Your task to perform on an android device: turn off translation in the chrome app Image 0: 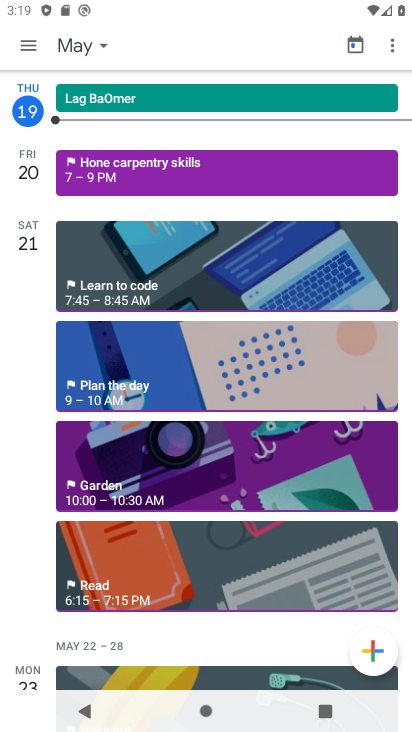
Step 0: press home button
Your task to perform on an android device: turn off translation in the chrome app Image 1: 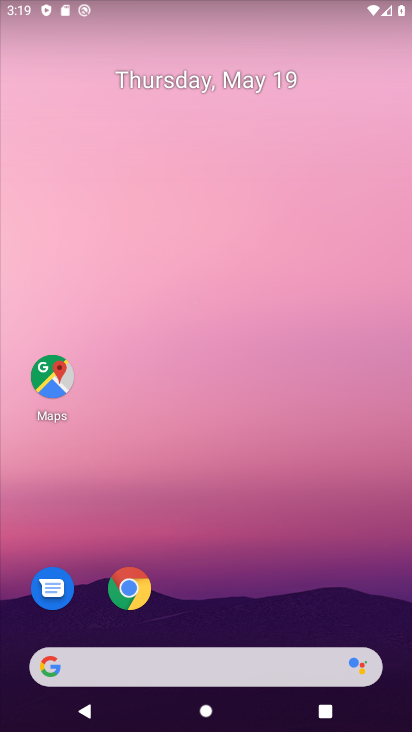
Step 1: click (140, 592)
Your task to perform on an android device: turn off translation in the chrome app Image 2: 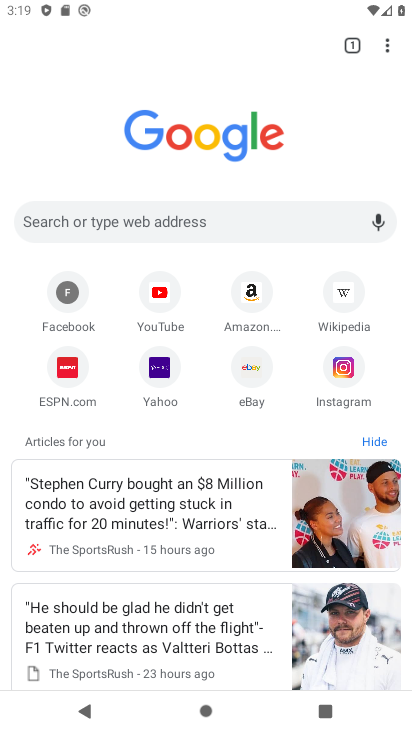
Step 2: click (387, 50)
Your task to perform on an android device: turn off translation in the chrome app Image 3: 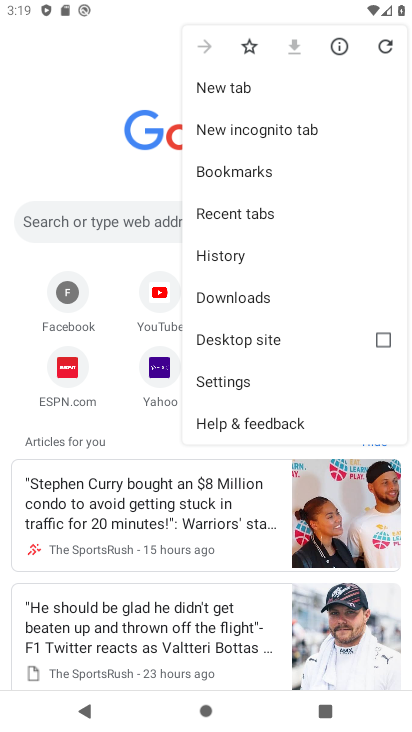
Step 3: click (234, 380)
Your task to perform on an android device: turn off translation in the chrome app Image 4: 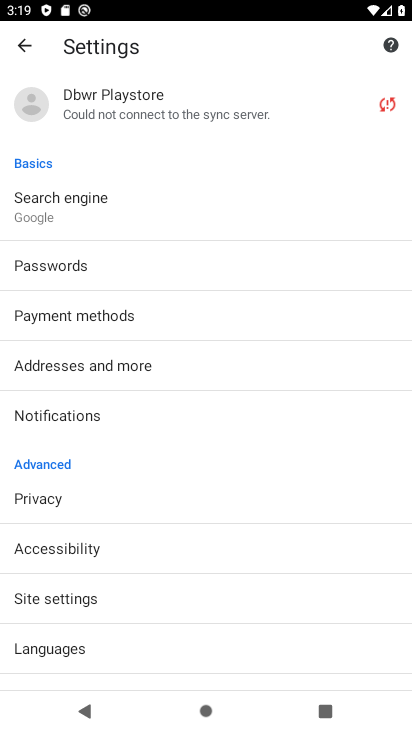
Step 4: click (61, 644)
Your task to perform on an android device: turn off translation in the chrome app Image 5: 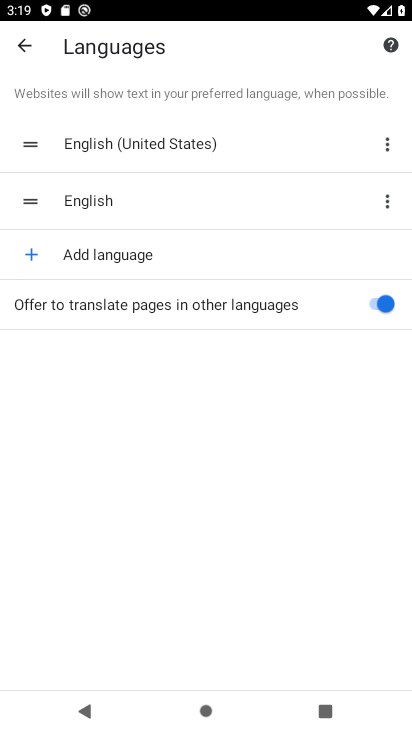
Step 5: click (362, 308)
Your task to perform on an android device: turn off translation in the chrome app Image 6: 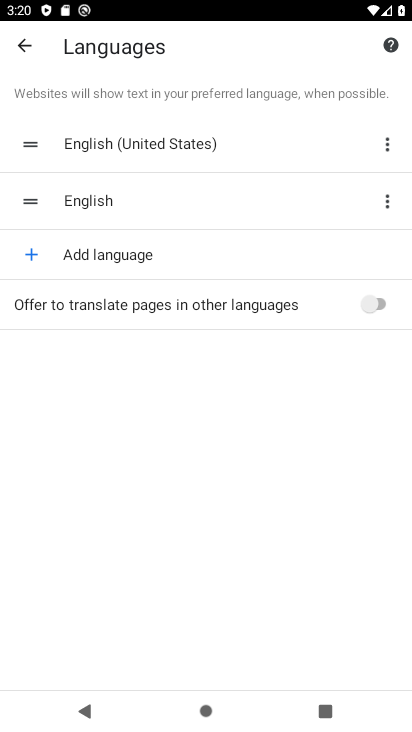
Step 6: task complete